Your task to perform on an android device: turn on location history Image 0: 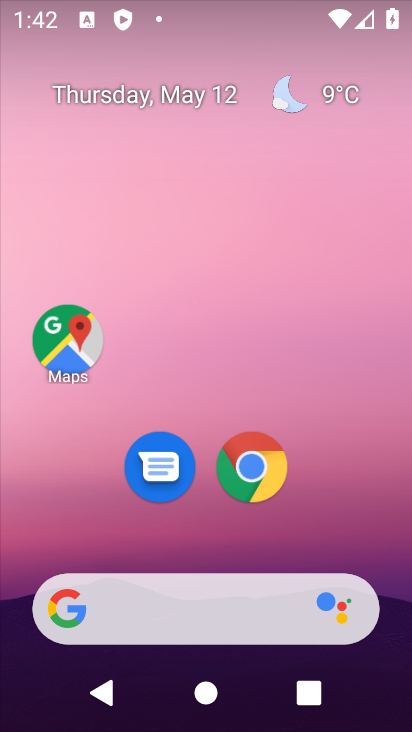
Step 0: drag from (294, 562) to (338, 176)
Your task to perform on an android device: turn on location history Image 1: 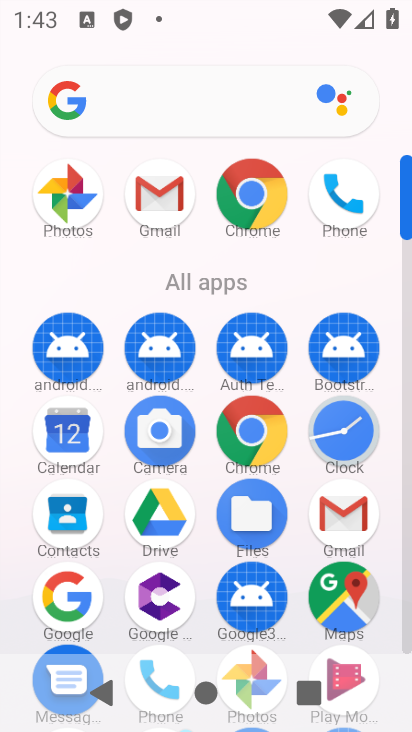
Step 1: drag from (200, 493) to (242, 210)
Your task to perform on an android device: turn on location history Image 2: 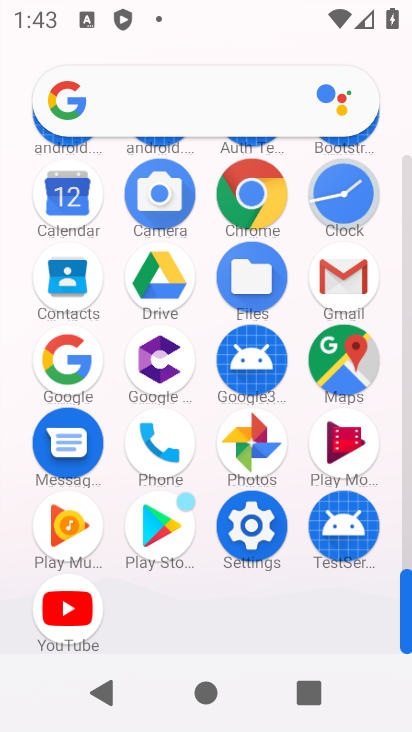
Step 2: click (244, 544)
Your task to perform on an android device: turn on location history Image 3: 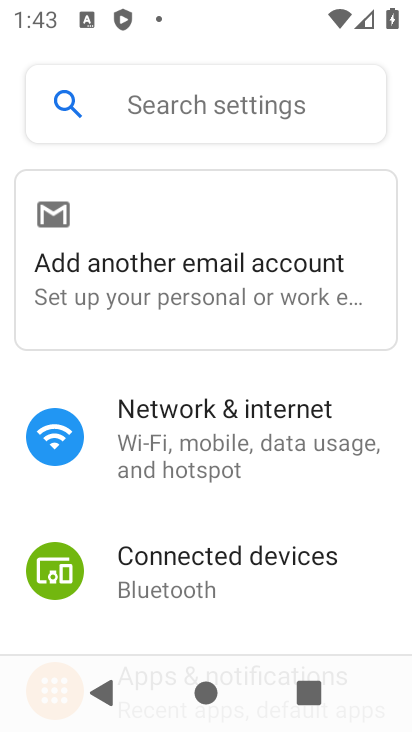
Step 3: drag from (193, 601) to (219, 247)
Your task to perform on an android device: turn on location history Image 4: 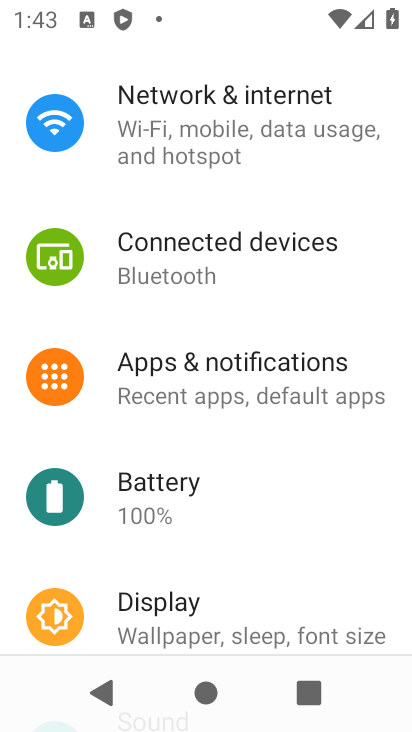
Step 4: drag from (195, 600) to (262, 197)
Your task to perform on an android device: turn on location history Image 5: 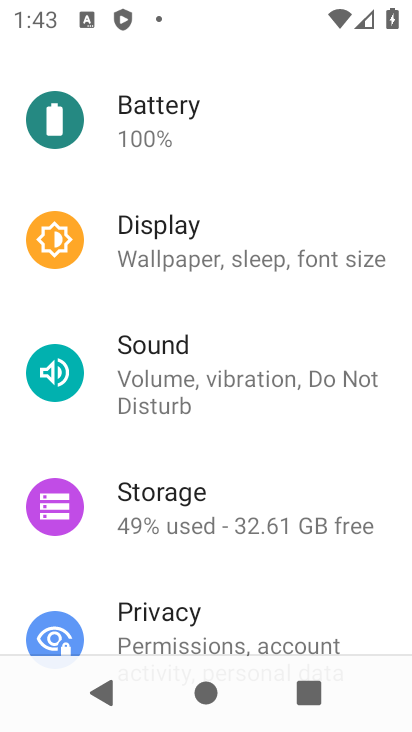
Step 5: drag from (202, 597) to (320, 121)
Your task to perform on an android device: turn on location history Image 6: 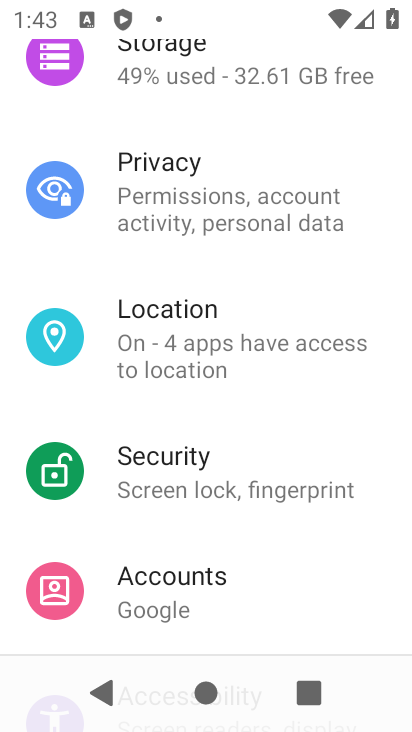
Step 6: click (185, 362)
Your task to perform on an android device: turn on location history Image 7: 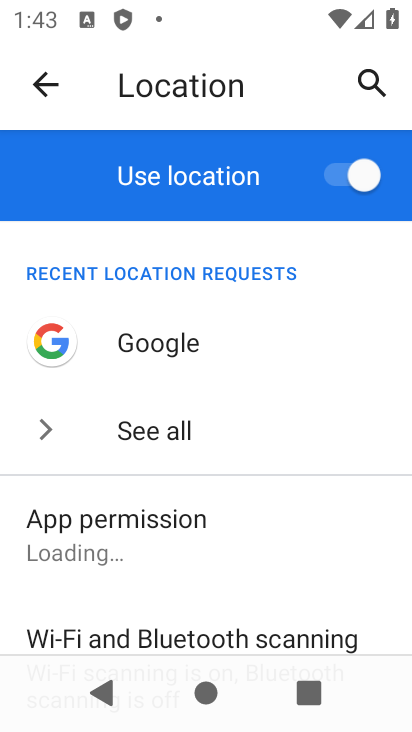
Step 7: drag from (191, 611) to (278, 244)
Your task to perform on an android device: turn on location history Image 8: 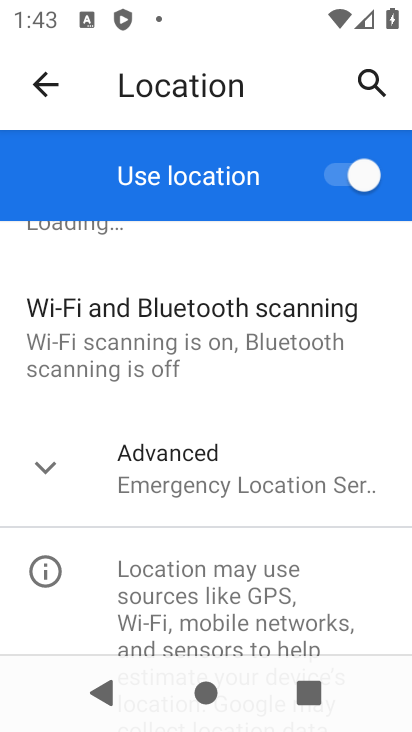
Step 8: click (170, 482)
Your task to perform on an android device: turn on location history Image 9: 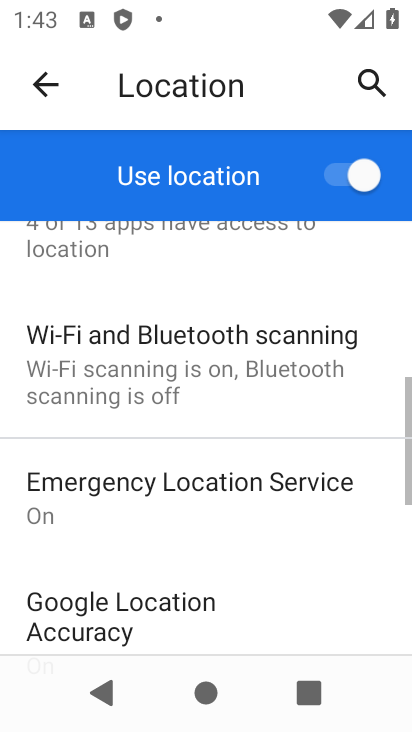
Step 9: drag from (153, 629) to (211, 298)
Your task to perform on an android device: turn on location history Image 10: 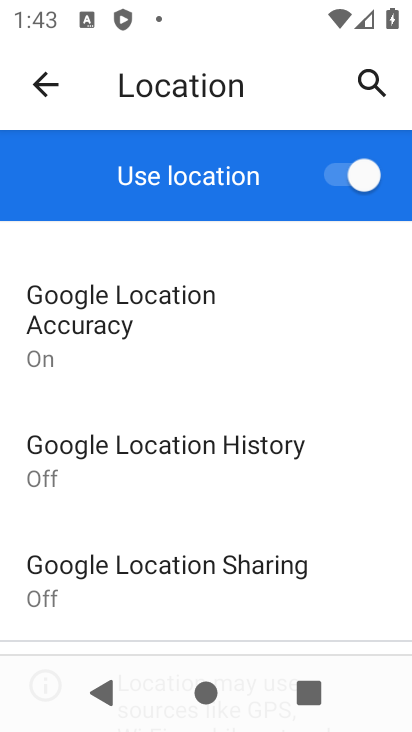
Step 10: click (132, 479)
Your task to perform on an android device: turn on location history Image 11: 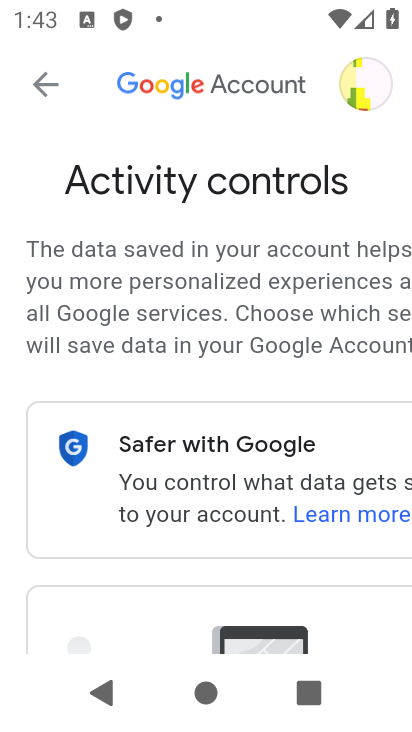
Step 11: drag from (259, 585) to (233, 171)
Your task to perform on an android device: turn on location history Image 12: 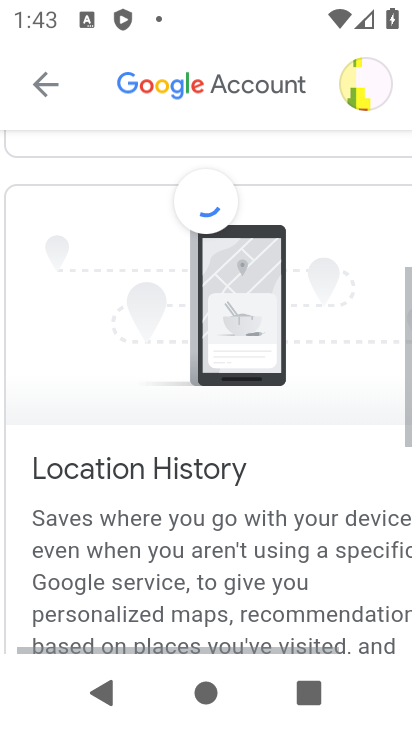
Step 12: drag from (216, 629) to (228, 199)
Your task to perform on an android device: turn on location history Image 13: 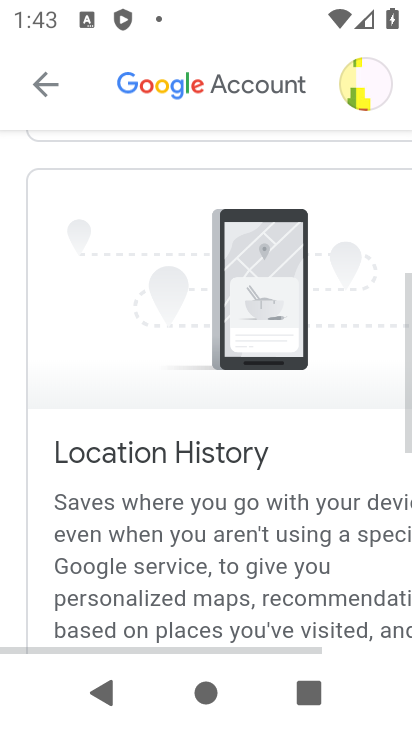
Step 13: drag from (184, 567) to (223, 165)
Your task to perform on an android device: turn on location history Image 14: 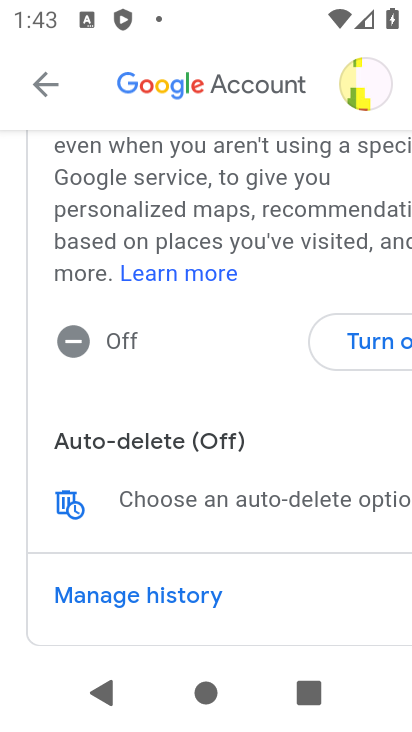
Step 14: click (369, 341)
Your task to perform on an android device: turn on location history Image 15: 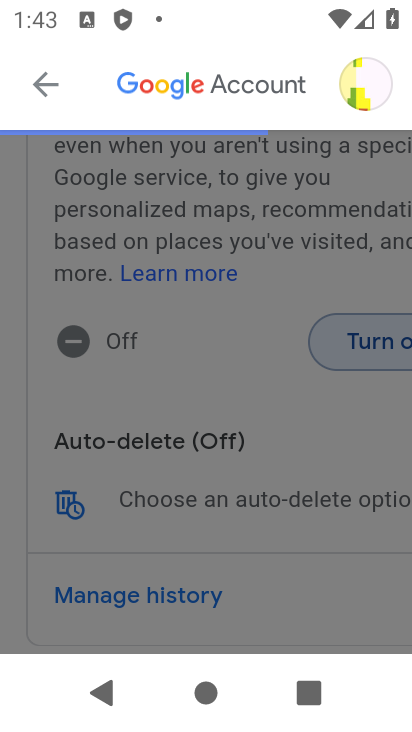
Step 15: click (368, 320)
Your task to perform on an android device: turn on location history Image 16: 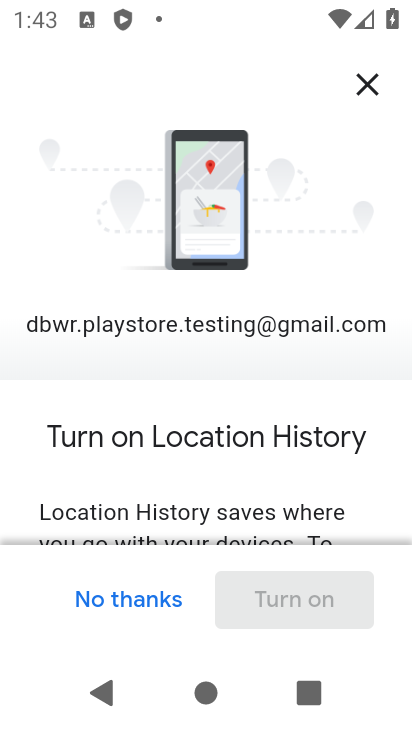
Step 16: click (116, 603)
Your task to perform on an android device: turn on location history Image 17: 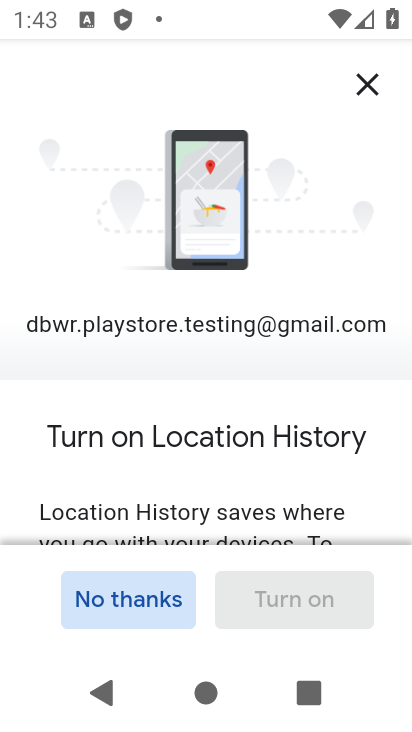
Step 17: click (363, 606)
Your task to perform on an android device: turn on location history Image 18: 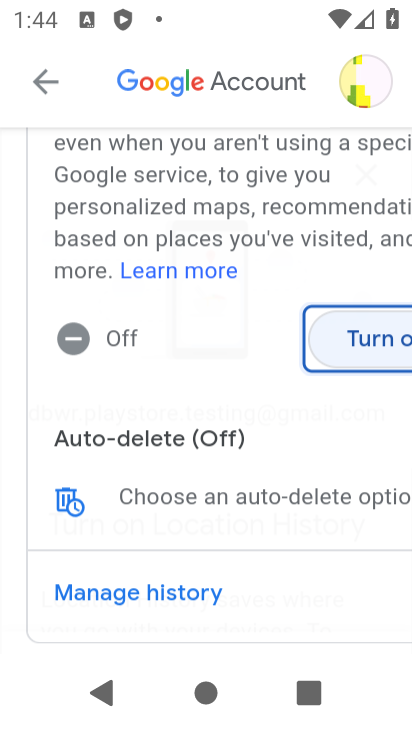
Step 18: click (338, 601)
Your task to perform on an android device: turn on location history Image 19: 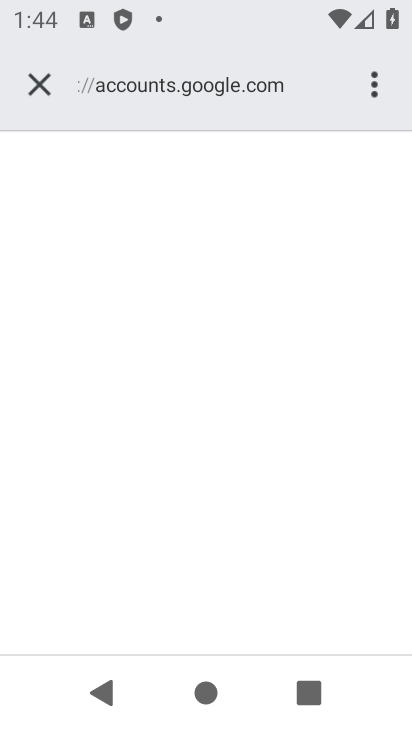
Step 19: task complete